Your task to perform on an android device: set default search engine in the chrome app Image 0: 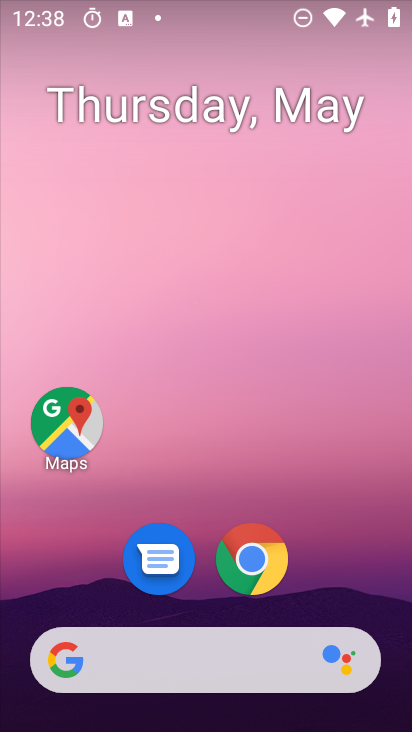
Step 0: click (275, 563)
Your task to perform on an android device: set default search engine in the chrome app Image 1: 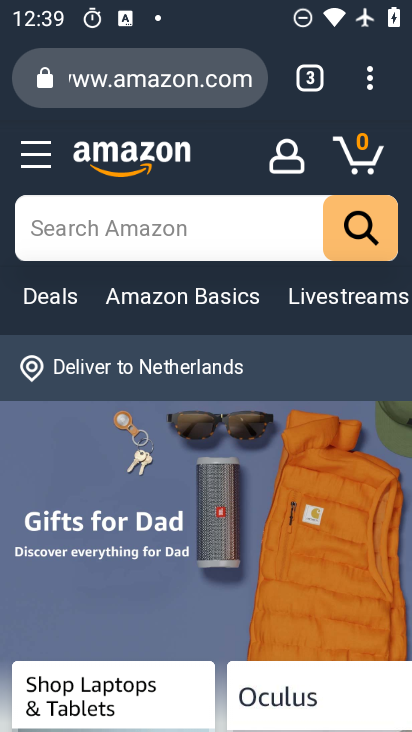
Step 1: click (368, 77)
Your task to perform on an android device: set default search engine in the chrome app Image 2: 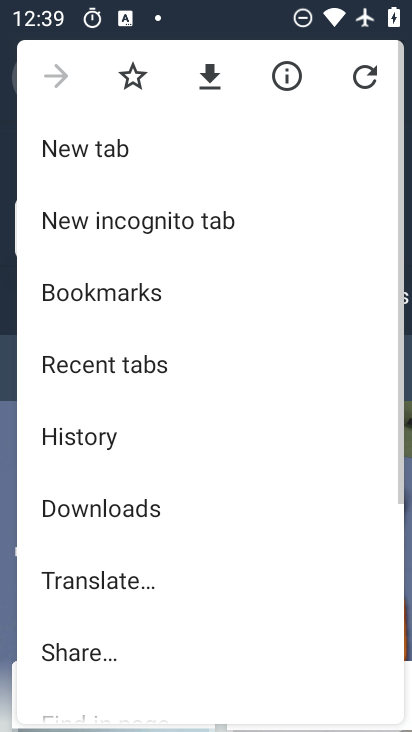
Step 2: drag from (203, 571) to (237, 335)
Your task to perform on an android device: set default search engine in the chrome app Image 3: 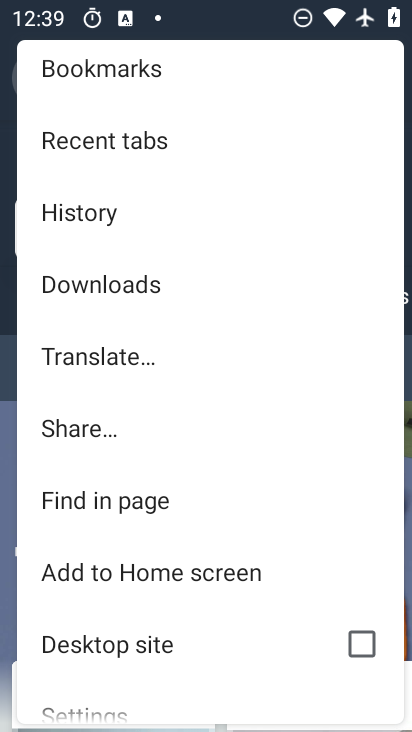
Step 3: drag from (136, 640) to (191, 246)
Your task to perform on an android device: set default search engine in the chrome app Image 4: 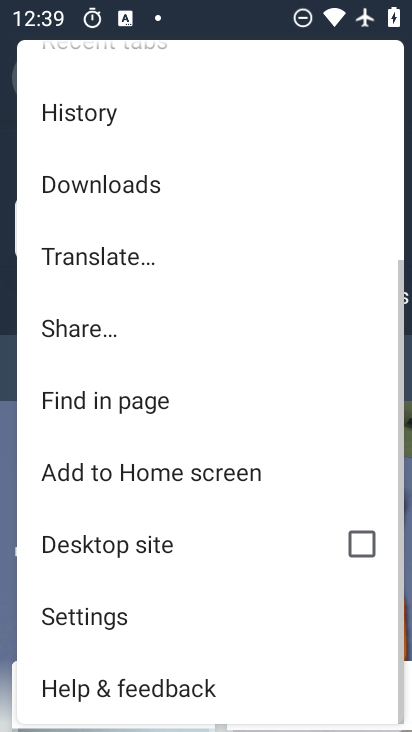
Step 4: click (80, 617)
Your task to perform on an android device: set default search engine in the chrome app Image 5: 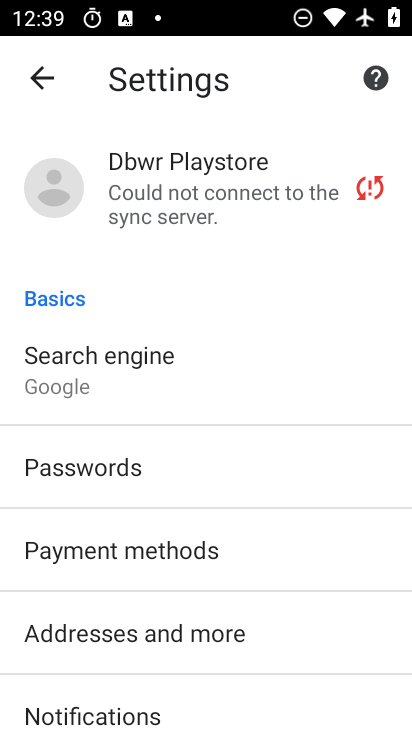
Step 5: click (187, 376)
Your task to perform on an android device: set default search engine in the chrome app Image 6: 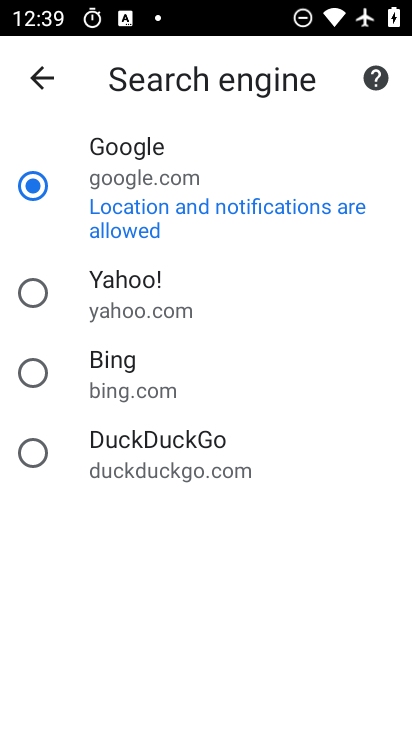
Step 6: task complete